Your task to perform on an android device: choose inbox layout in the gmail app Image 0: 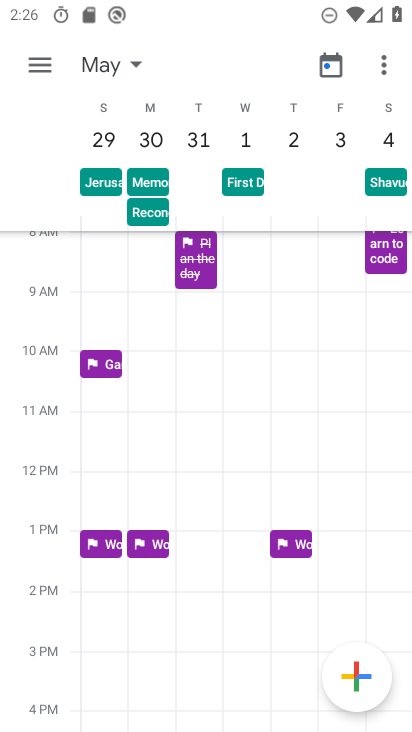
Step 0: drag from (336, 519) to (304, 200)
Your task to perform on an android device: choose inbox layout in the gmail app Image 1: 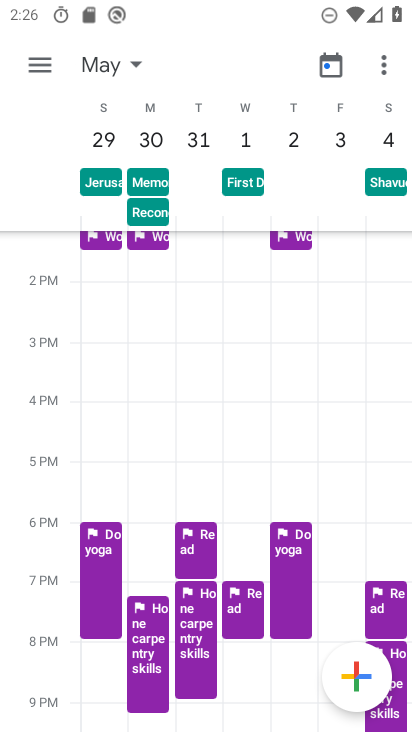
Step 1: press home button
Your task to perform on an android device: choose inbox layout in the gmail app Image 2: 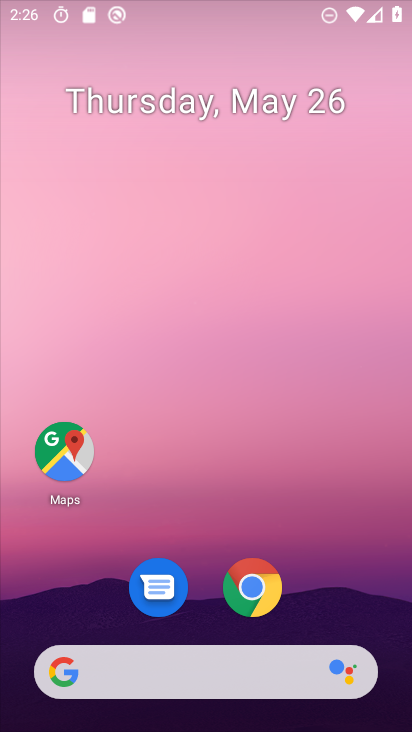
Step 2: drag from (310, 478) to (309, 128)
Your task to perform on an android device: choose inbox layout in the gmail app Image 3: 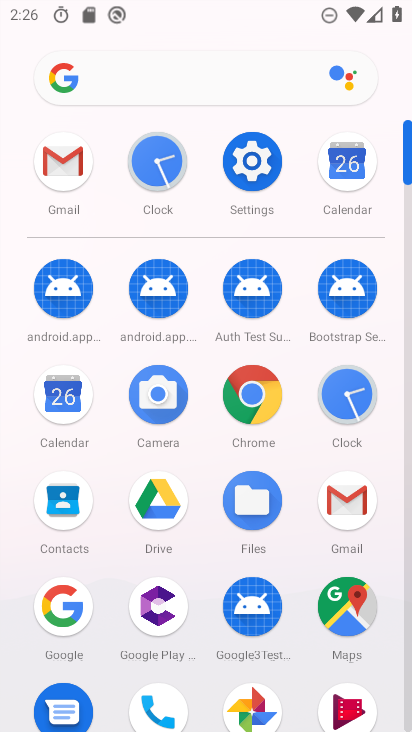
Step 3: click (348, 504)
Your task to perform on an android device: choose inbox layout in the gmail app Image 4: 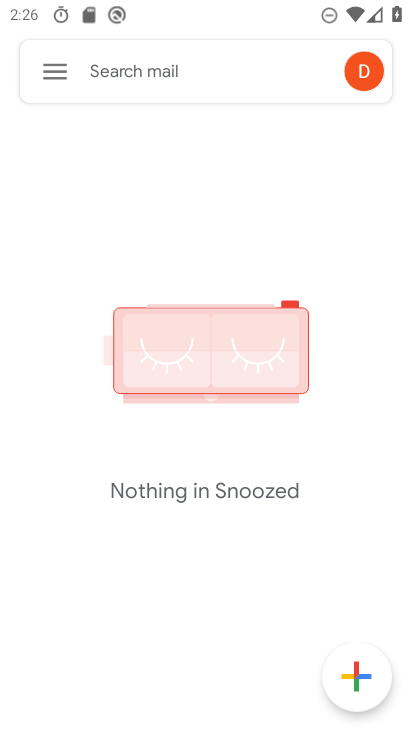
Step 4: click (52, 60)
Your task to perform on an android device: choose inbox layout in the gmail app Image 5: 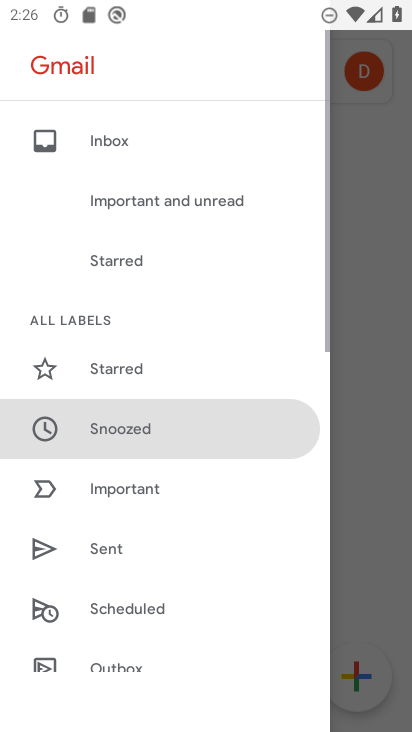
Step 5: drag from (153, 515) to (231, 106)
Your task to perform on an android device: choose inbox layout in the gmail app Image 6: 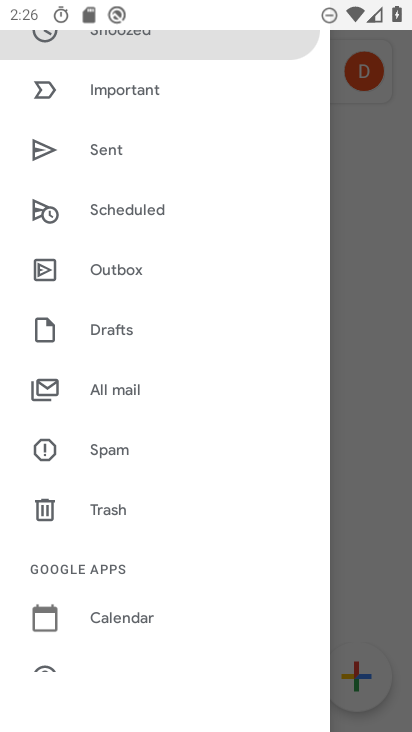
Step 6: drag from (134, 613) to (223, 257)
Your task to perform on an android device: choose inbox layout in the gmail app Image 7: 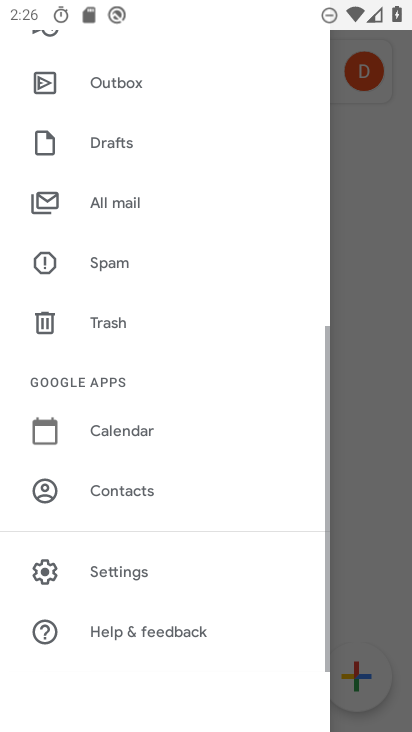
Step 7: click (119, 571)
Your task to perform on an android device: choose inbox layout in the gmail app Image 8: 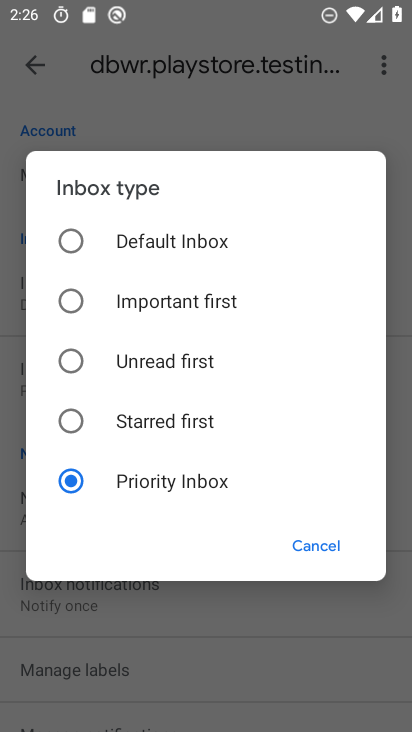
Step 8: task complete